Your task to perform on an android device: Open display settings Image 0: 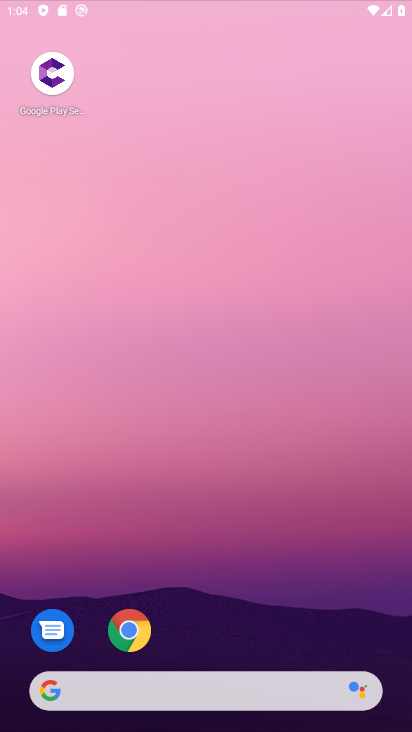
Step 0: press home button
Your task to perform on an android device: Open display settings Image 1: 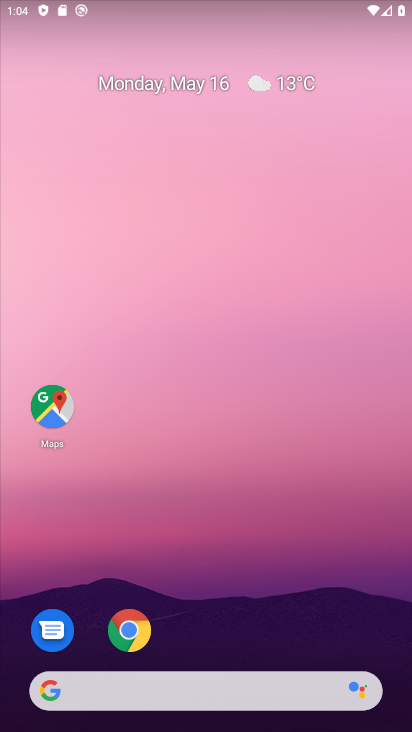
Step 1: drag from (295, 554) to (242, 311)
Your task to perform on an android device: Open display settings Image 2: 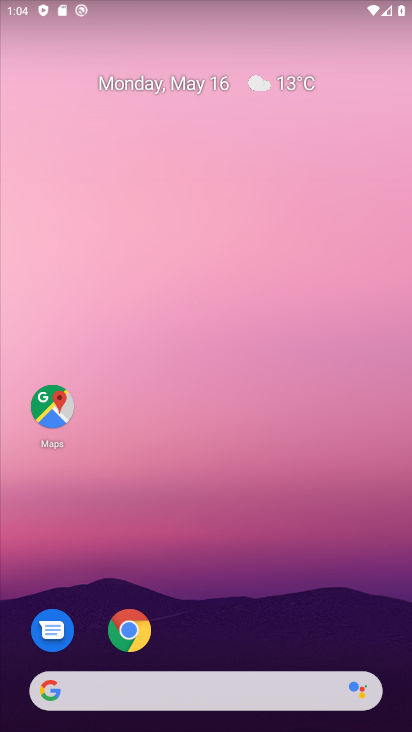
Step 2: drag from (276, 583) to (270, 163)
Your task to perform on an android device: Open display settings Image 3: 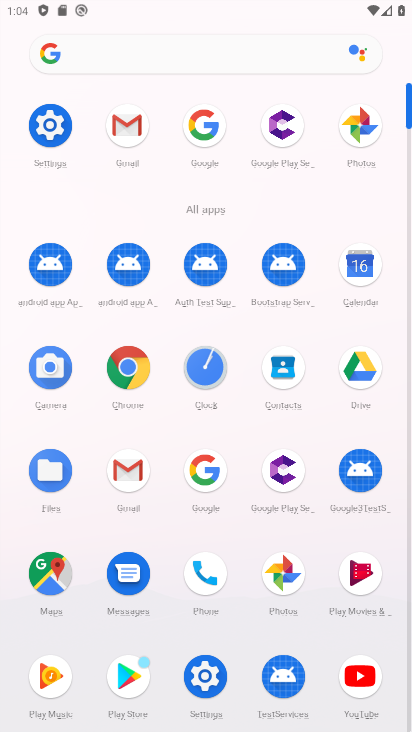
Step 3: click (57, 123)
Your task to perform on an android device: Open display settings Image 4: 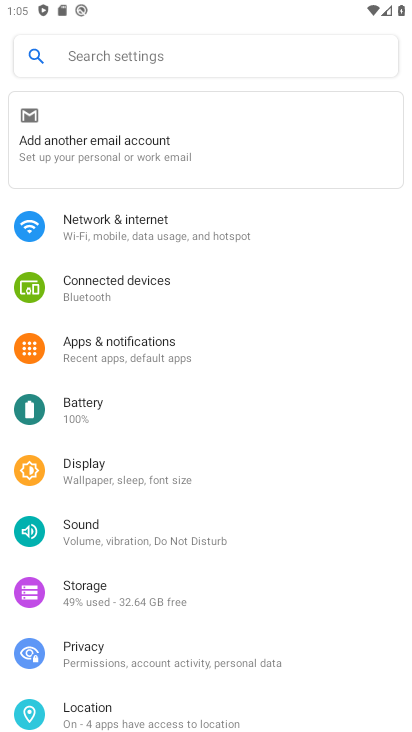
Step 4: click (140, 481)
Your task to perform on an android device: Open display settings Image 5: 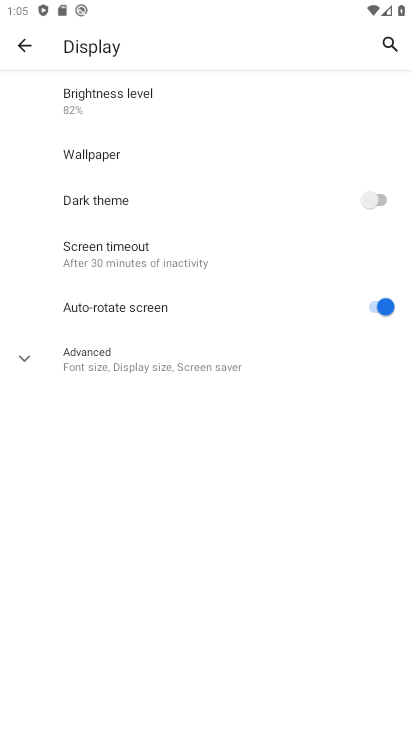
Step 5: task complete